Your task to perform on an android device: check out phone information Image 0: 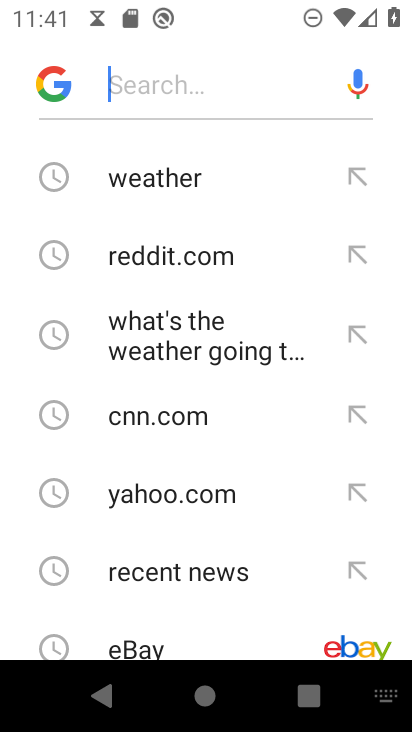
Step 0: press back button
Your task to perform on an android device: check out phone information Image 1: 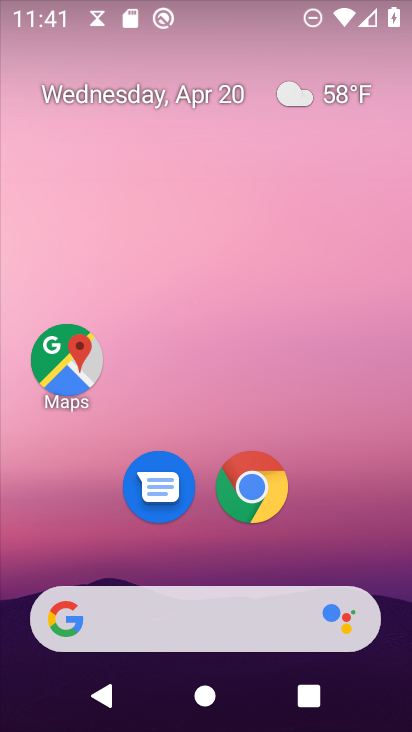
Step 1: drag from (311, 508) to (255, 111)
Your task to perform on an android device: check out phone information Image 2: 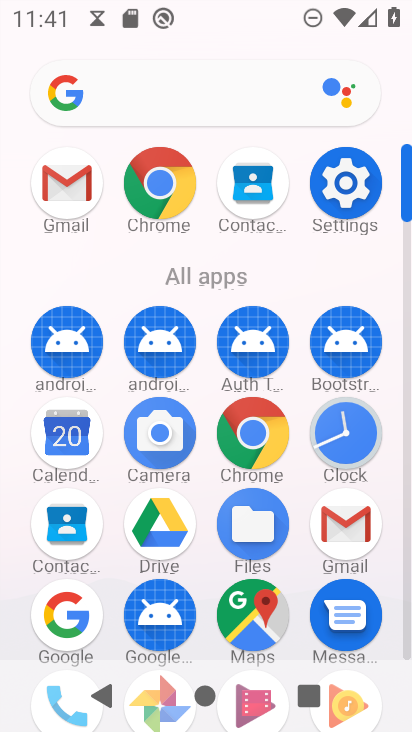
Step 2: drag from (11, 518) to (4, 250)
Your task to perform on an android device: check out phone information Image 3: 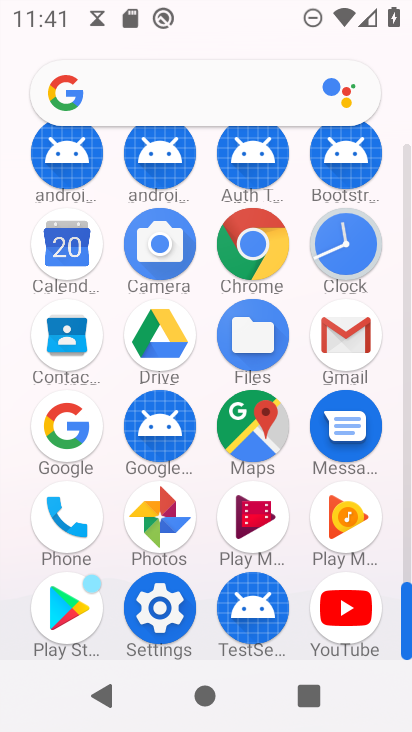
Step 3: click (158, 602)
Your task to perform on an android device: check out phone information Image 4: 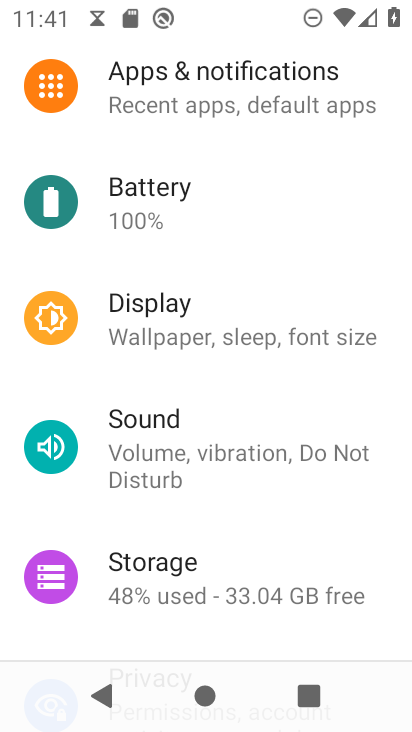
Step 4: drag from (248, 415) to (238, 147)
Your task to perform on an android device: check out phone information Image 5: 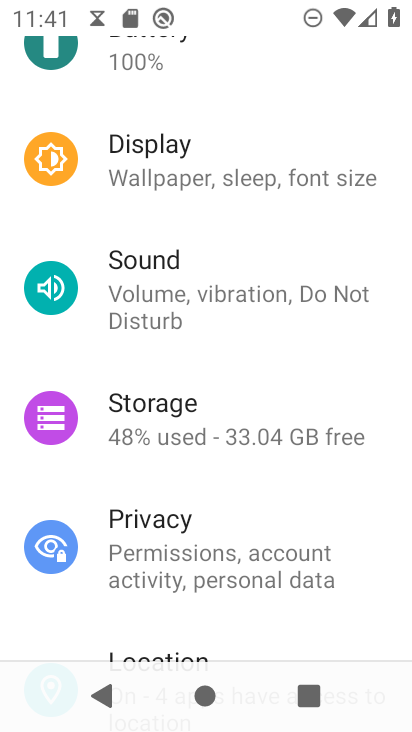
Step 5: drag from (253, 472) to (256, 179)
Your task to perform on an android device: check out phone information Image 6: 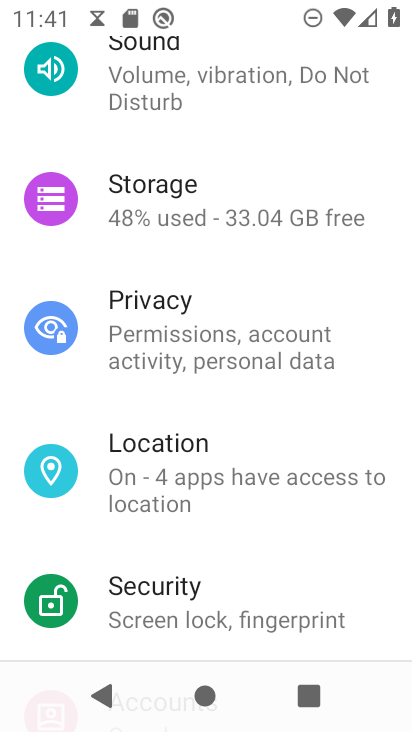
Step 6: drag from (279, 568) to (230, 150)
Your task to perform on an android device: check out phone information Image 7: 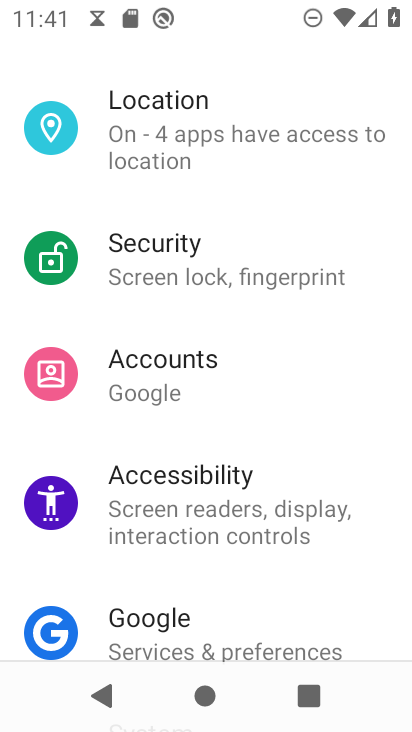
Step 7: drag from (249, 535) to (239, 194)
Your task to perform on an android device: check out phone information Image 8: 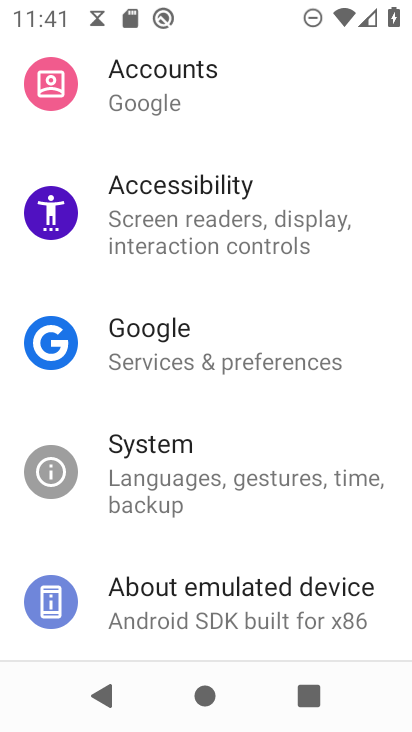
Step 8: drag from (247, 551) to (241, 224)
Your task to perform on an android device: check out phone information Image 9: 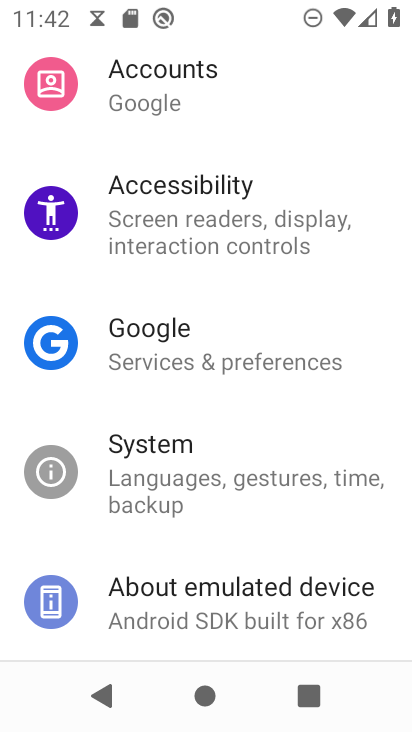
Step 9: click (222, 585)
Your task to perform on an android device: check out phone information Image 10: 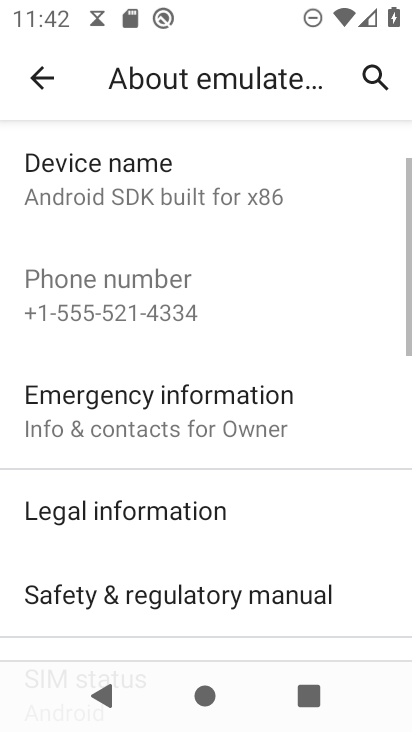
Step 10: task complete